Your task to perform on an android device: Play the last video I watched on Youtube Image 0: 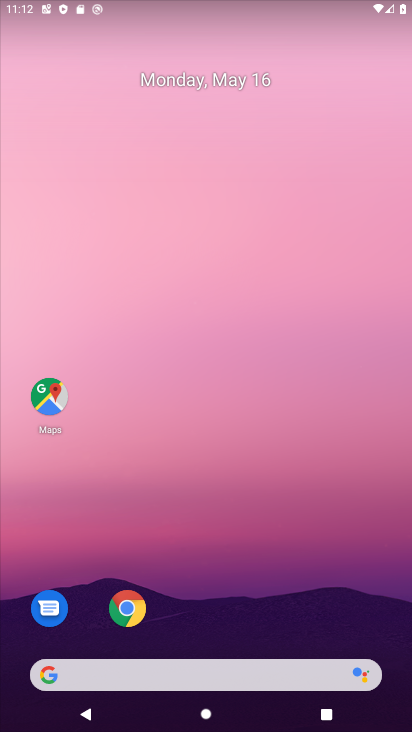
Step 0: drag from (92, 676) to (250, 233)
Your task to perform on an android device: Play the last video I watched on Youtube Image 1: 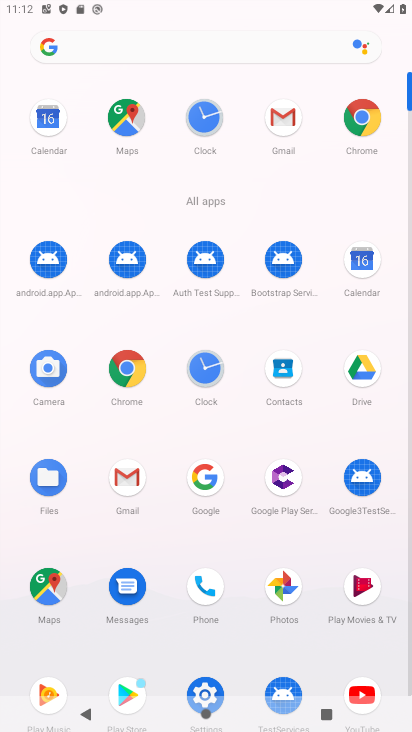
Step 1: drag from (304, 637) to (360, 149)
Your task to perform on an android device: Play the last video I watched on Youtube Image 2: 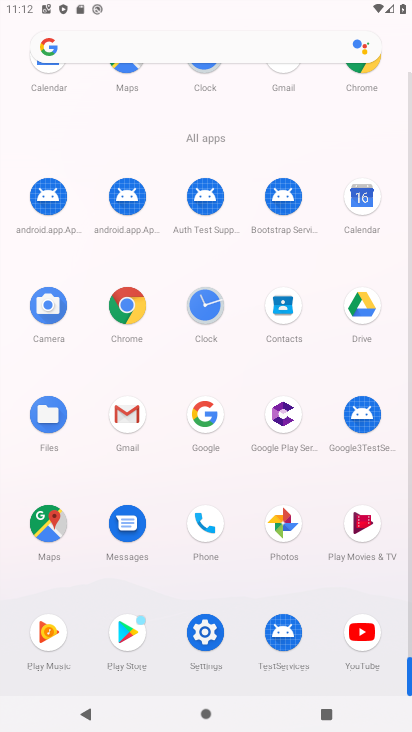
Step 2: click (354, 637)
Your task to perform on an android device: Play the last video I watched on Youtube Image 3: 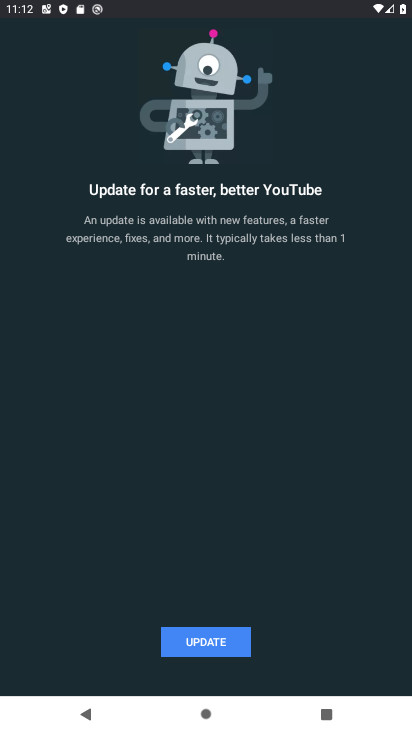
Step 3: click (223, 647)
Your task to perform on an android device: Play the last video I watched on Youtube Image 4: 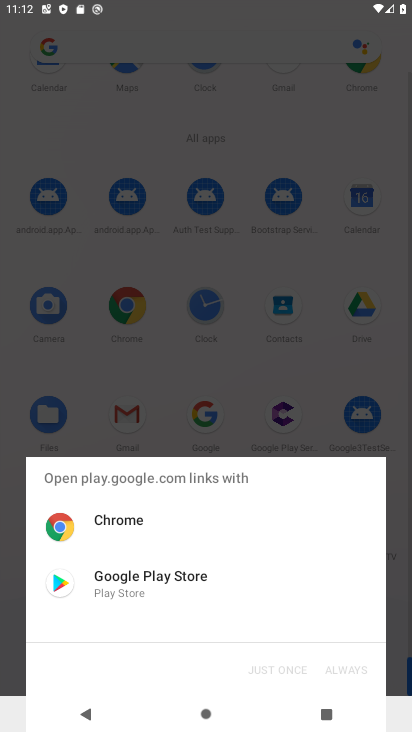
Step 4: click (159, 576)
Your task to perform on an android device: Play the last video I watched on Youtube Image 5: 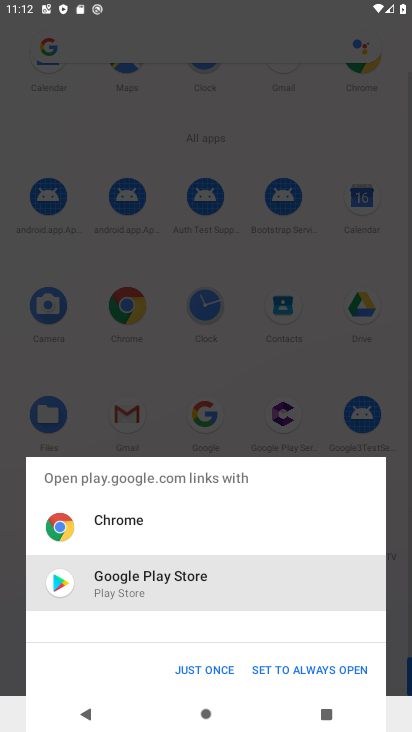
Step 5: click (218, 669)
Your task to perform on an android device: Play the last video I watched on Youtube Image 6: 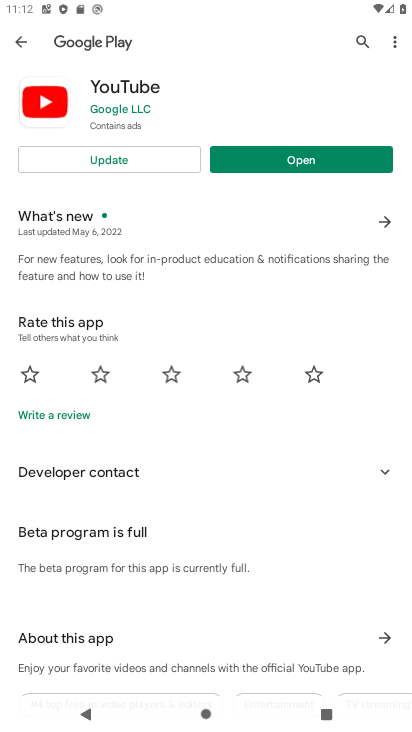
Step 6: click (132, 161)
Your task to perform on an android device: Play the last video I watched on Youtube Image 7: 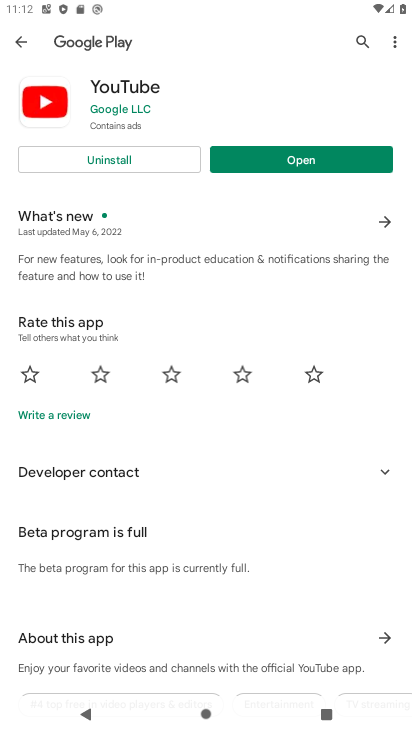
Step 7: click (246, 150)
Your task to perform on an android device: Play the last video I watched on Youtube Image 8: 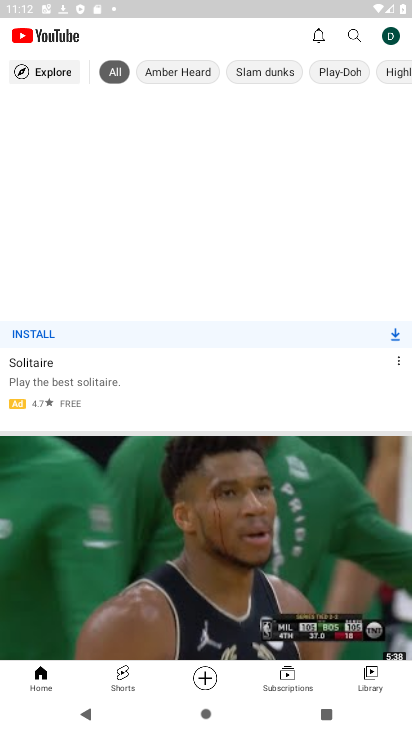
Step 8: click (366, 682)
Your task to perform on an android device: Play the last video I watched on Youtube Image 9: 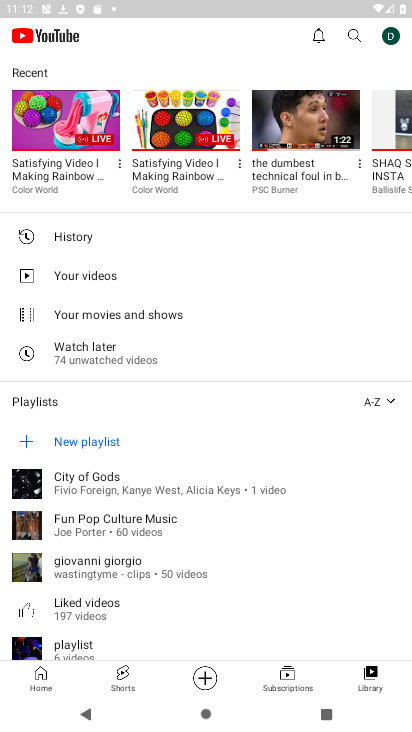
Step 9: click (65, 241)
Your task to perform on an android device: Play the last video I watched on Youtube Image 10: 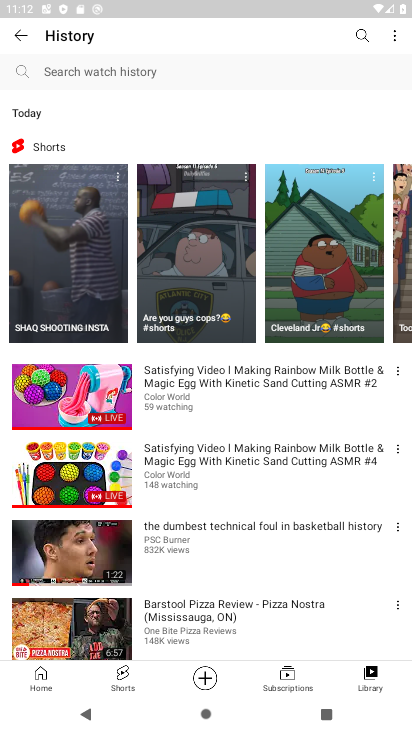
Step 10: click (79, 398)
Your task to perform on an android device: Play the last video I watched on Youtube Image 11: 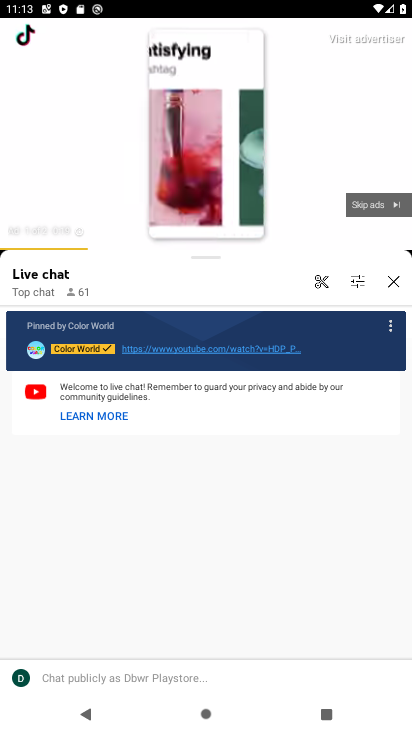
Step 11: click (368, 209)
Your task to perform on an android device: Play the last video I watched on Youtube Image 12: 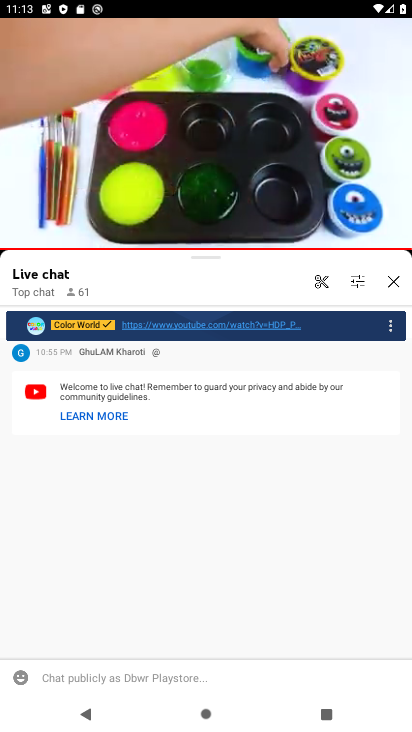
Step 12: click (233, 75)
Your task to perform on an android device: Play the last video I watched on Youtube Image 13: 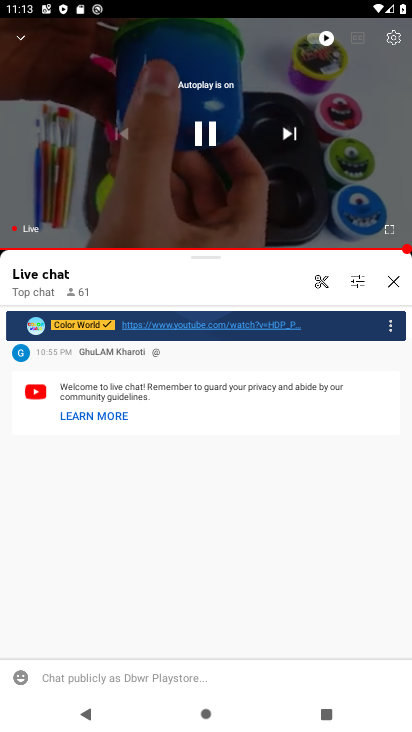
Step 13: click (208, 135)
Your task to perform on an android device: Play the last video I watched on Youtube Image 14: 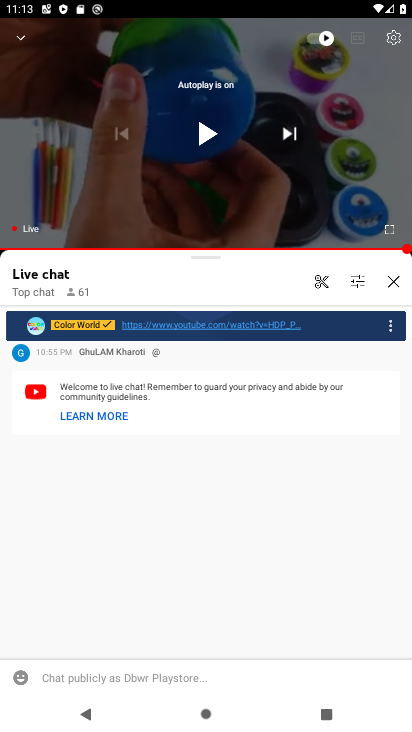
Step 14: task complete